Your task to perform on an android device: check android version Image 0: 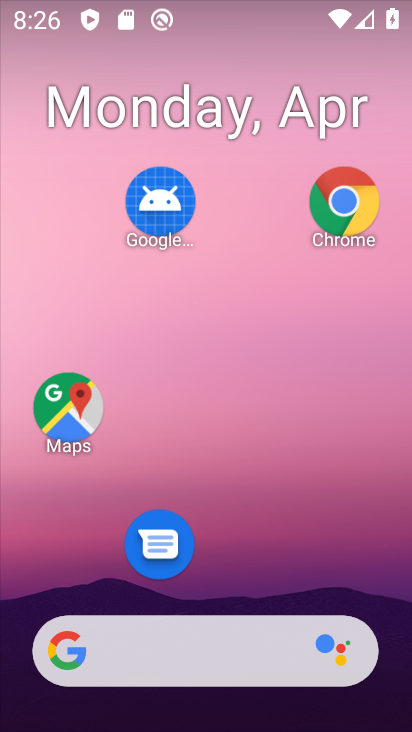
Step 0: drag from (212, 586) to (220, 42)
Your task to perform on an android device: check android version Image 1: 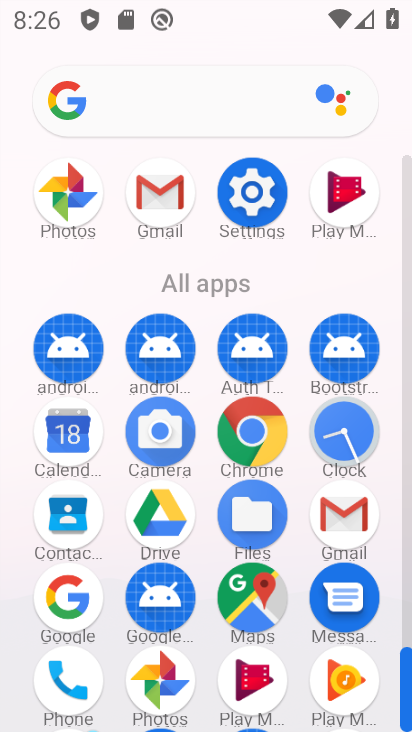
Step 1: click (246, 178)
Your task to perform on an android device: check android version Image 2: 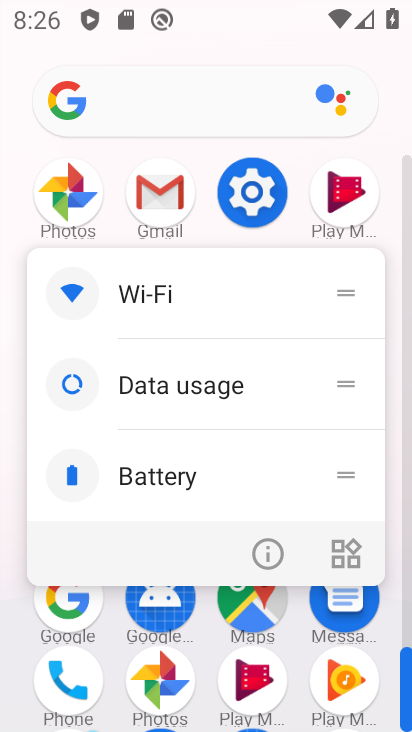
Step 2: click (246, 178)
Your task to perform on an android device: check android version Image 3: 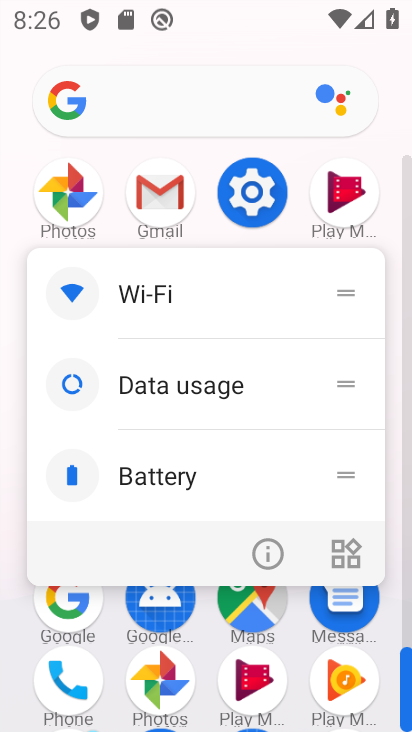
Step 3: click (246, 178)
Your task to perform on an android device: check android version Image 4: 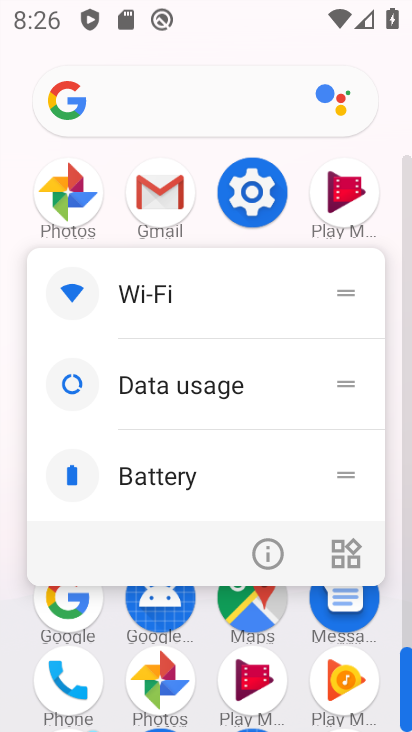
Step 4: click (232, 206)
Your task to perform on an android device: check android version Image 5: 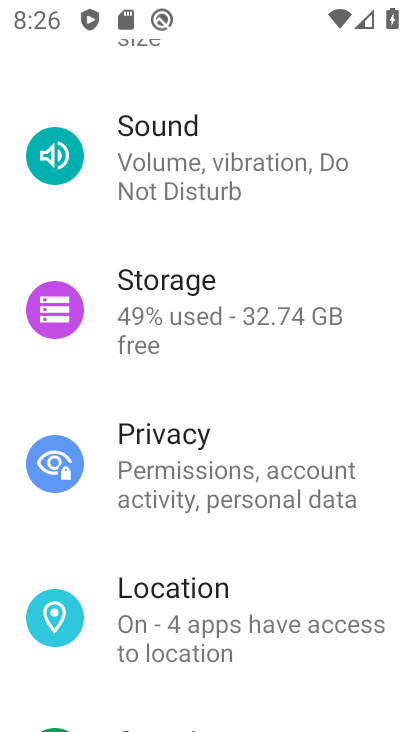
Step 5: drag from (243, 654) to (171, 46)
Your task to perform on an android device: check android version Image 6: 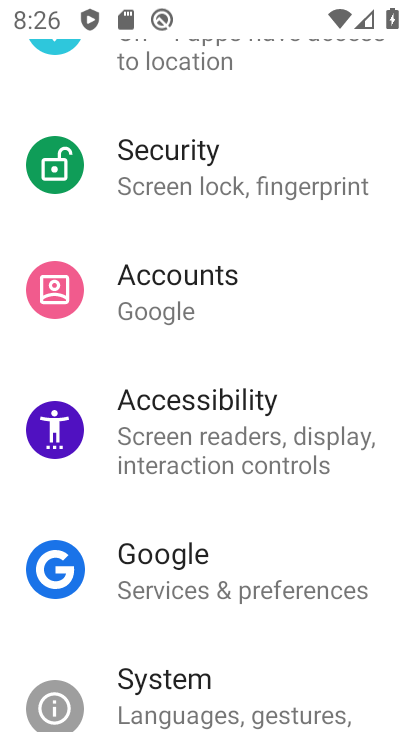
Step 6: click (204, 668)
Your task to perform on an android device: check android version Image 7: 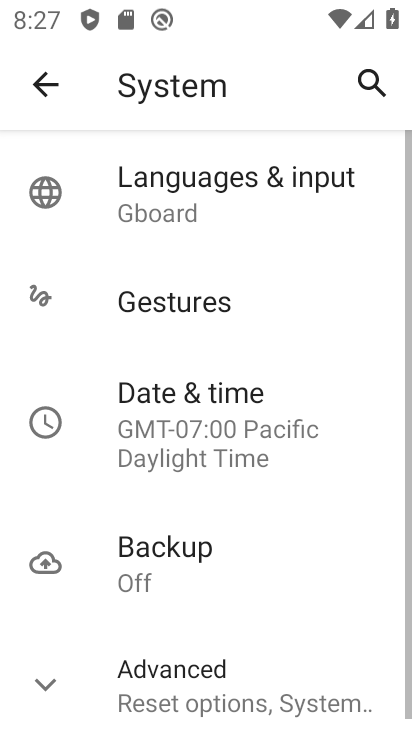
Step 7: click (43, 89)
Your task to perform on an android device: check android version Image 8: 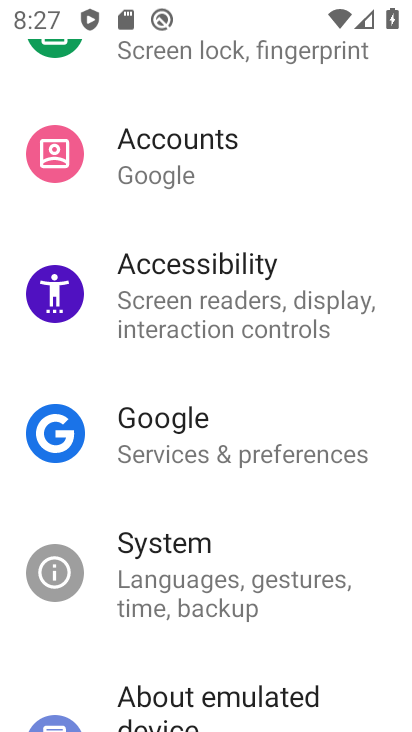
Step 8: drag from (222, 604) to (192, 1)
Your task to perform on an android device: check android version Image 9: 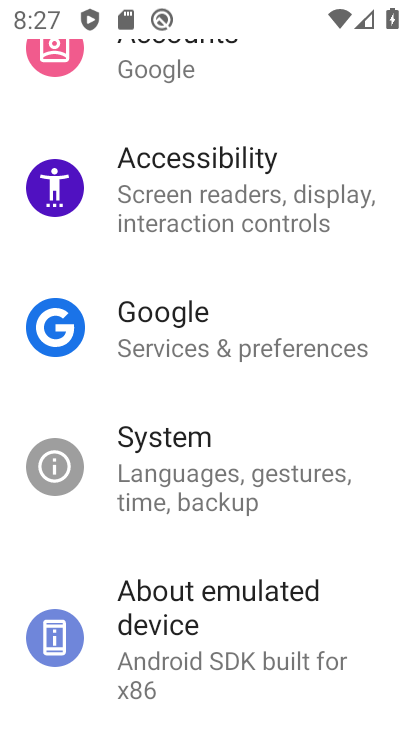
Step 9: click (164, 602)
Your task to perform on an android device: check android version Image 10: 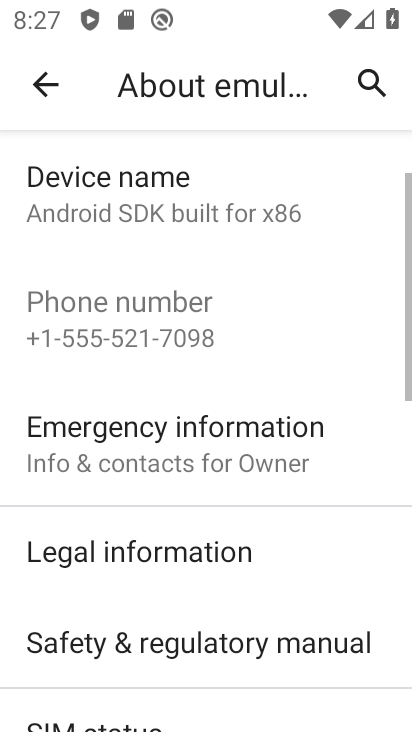
Step 10: drag from (183, 593) to (136, 67)
Your task to perform on an android device: check android version Image 11: 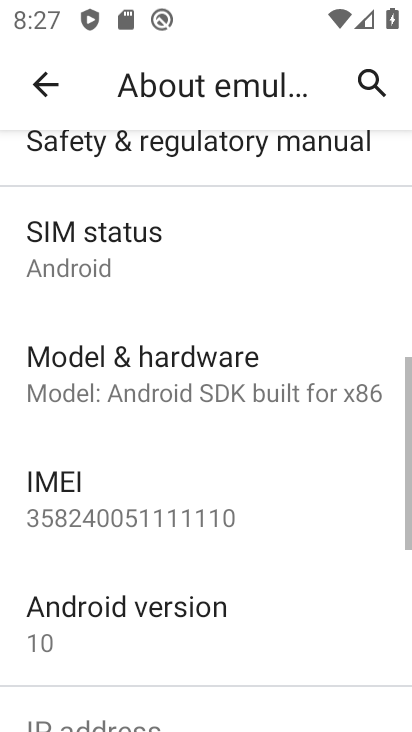
Step 11: click (101, 641)
Your task to perform on an android device: check android version Image 12: 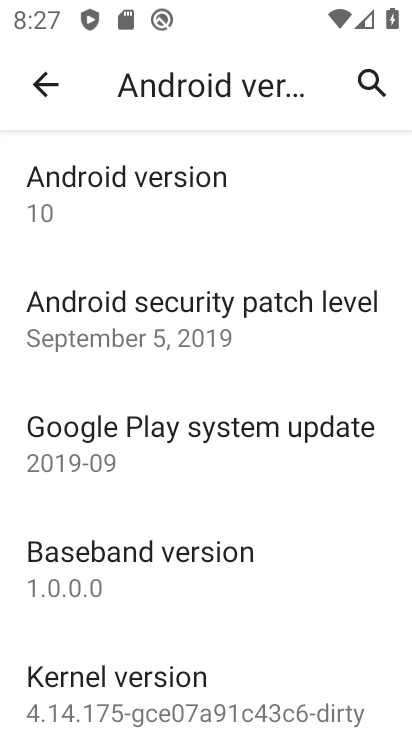
Step 12: click (135, 159)
Your task to perform on an android device: check android version Image 13: 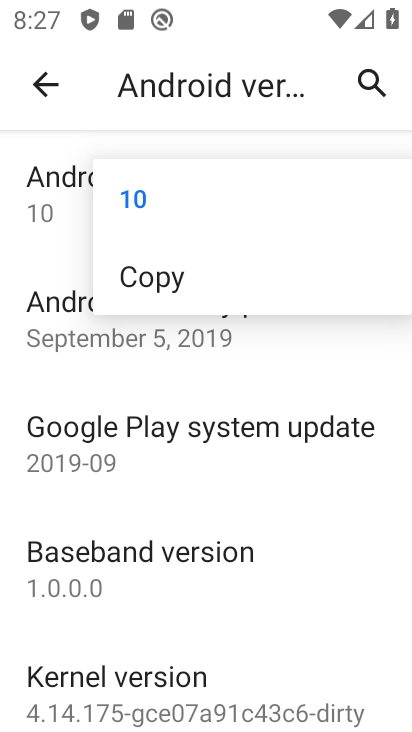
Step 13: task complete